Your task to perform on an android device: Open calendar and show me the fourth week of next month Image 0: 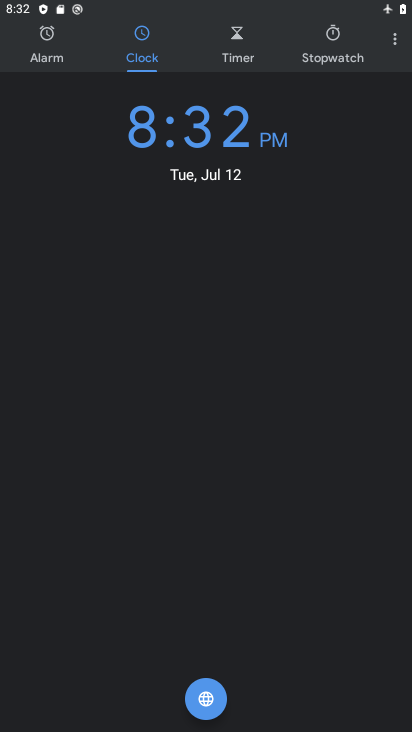
Step 0: press home button
Your task to perform on an android device: Open calendar and show me the fourth week of next month Image 1: 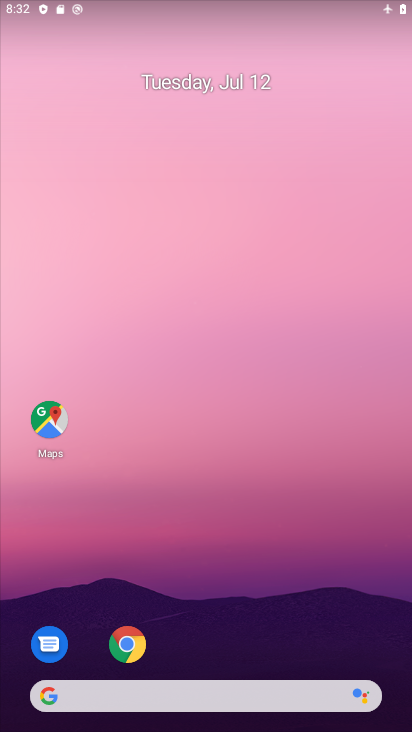
Step 1: drag from (212, 567) to (219, 141)
Your task to perform on an android device: Open calendar and show me the fourth week of next month Image 2: 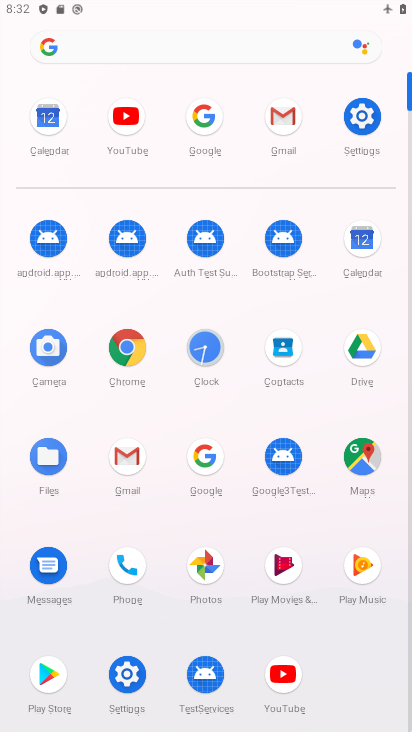
Step 2: click (358, 241)
Your task to perform on an android device: Open calendar and show me the fourth week of next month Image 3: 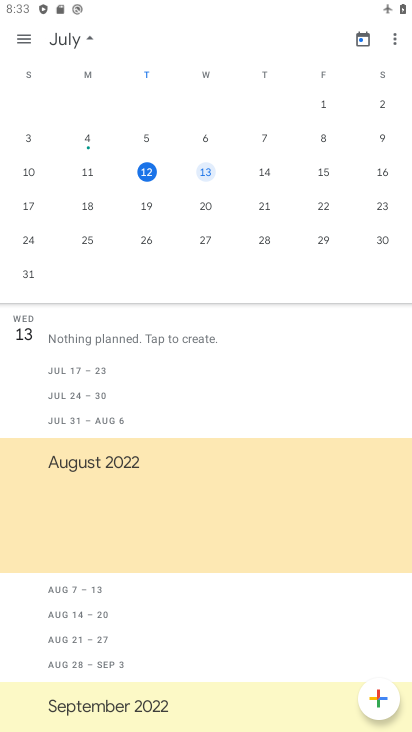
Step 3: drag from (314, 188) to (46, 162)
Your task to perform on an android device: Open calendar and show me the fourth week of next month Image 4: 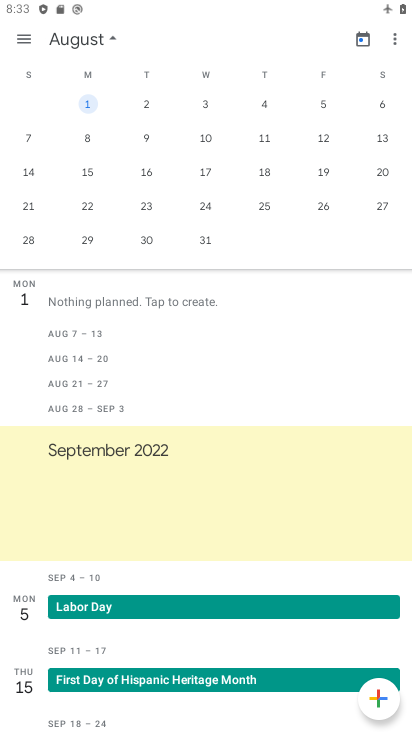
Step 4: click (26, 203)
Your task to perform on an android device: Open calendar and show me the fourth week of next month Image 5: 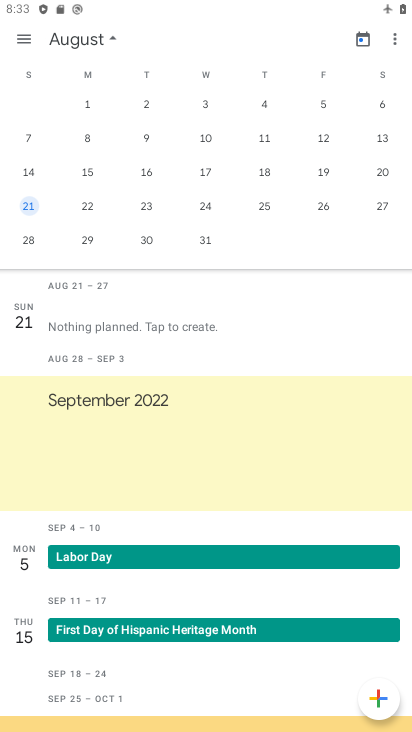
Step 5: task complete